Your task to perform on an android device: turn on notifications settings in the gmail app Image 0: 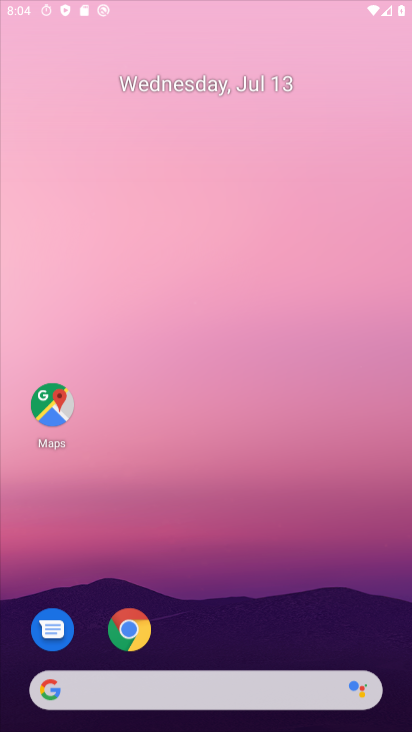
Step 0: click (252, 90)
Your task to perform on an android device: turn on notifications settings in the gmail app Image 1: 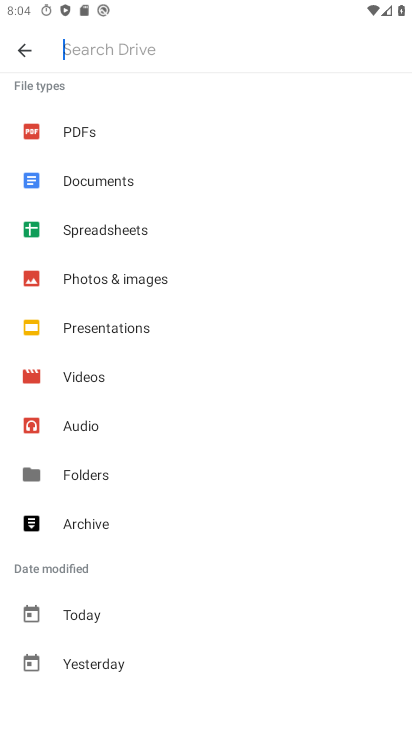
Step 1: press home button
Your task to perform on an android device: turn on notifications settings in the gmail app Image 2: 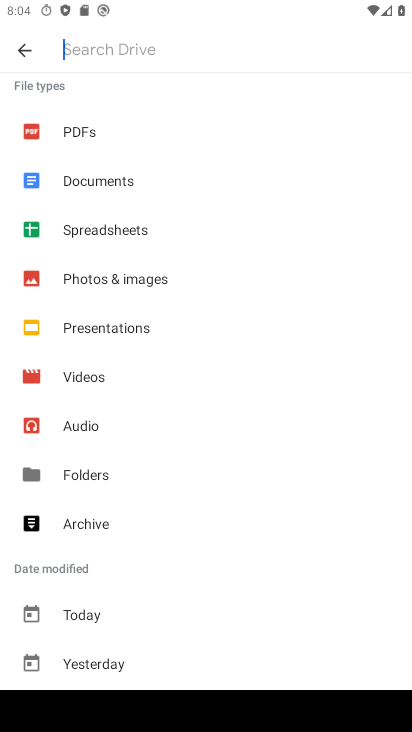
Step 2: press home button
Your task to perform on an android device: turn on notifications settings in the gmail app Image 3: 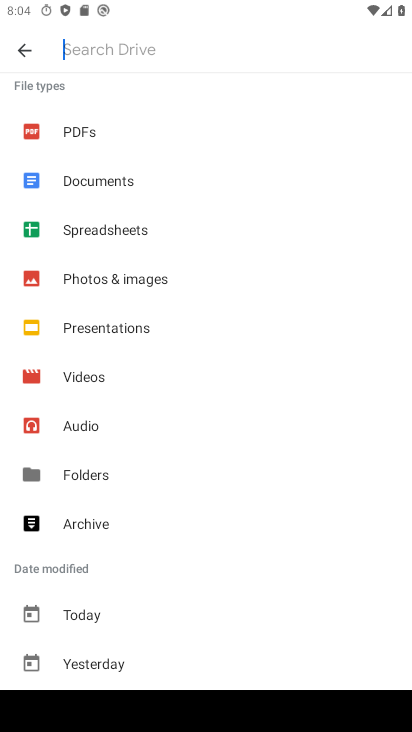
Step 3: click (248, 185)
Your task to perform on an android device: turn on notifications settings in the gmail app Image 4: 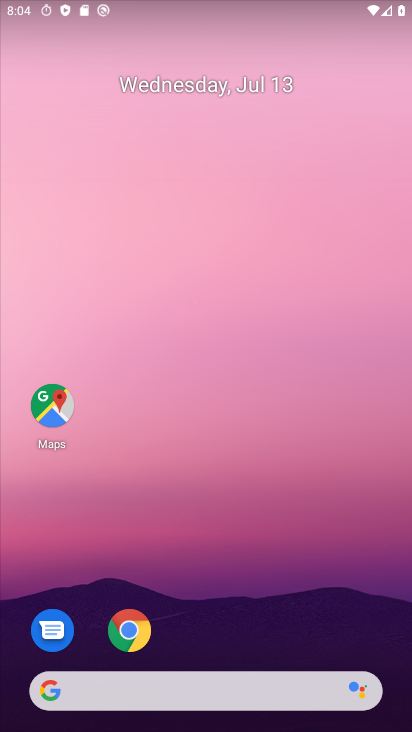
Step 4: drag from (190, 635) to (193, 363)
Your task to perform on an android device: turn on notifications settings in the gmail app Image 5: 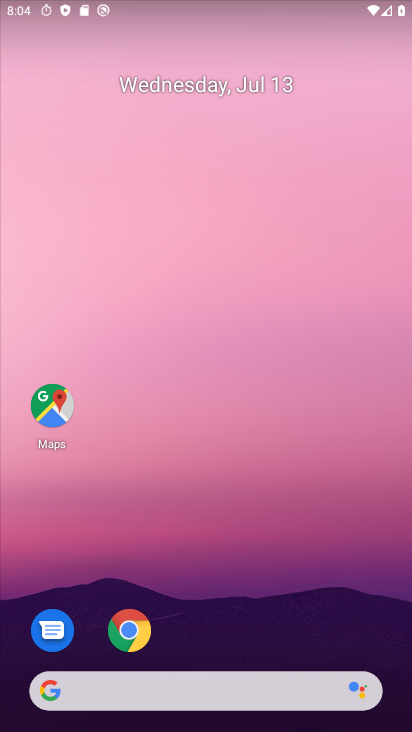
Step 5: drag from (200, 633) to (243, 74)
Your task to perform on an android device: turn on notifications settings in the gmail app Image 6: 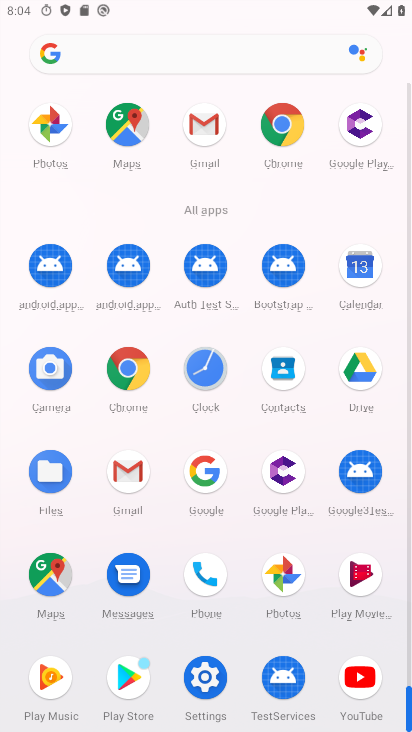
Step 6: click (131, 472)
Your task to perform on an android device: turn on notifications settings in the gmail app Image 7: 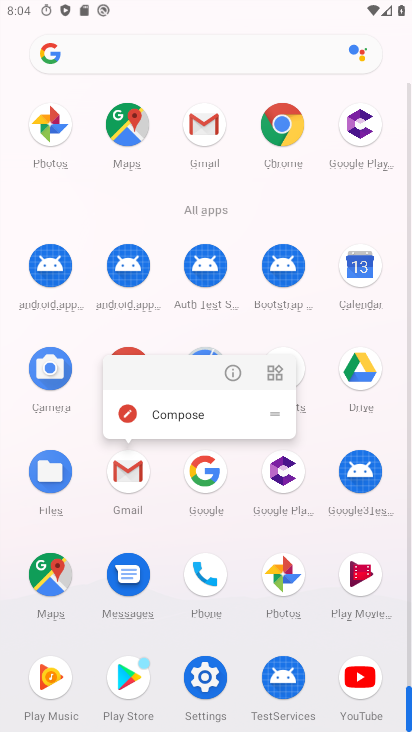
Step 7: click (235, 372)
Your task to perform on an android device: turn on notifications settings in the gmail app Image 8: 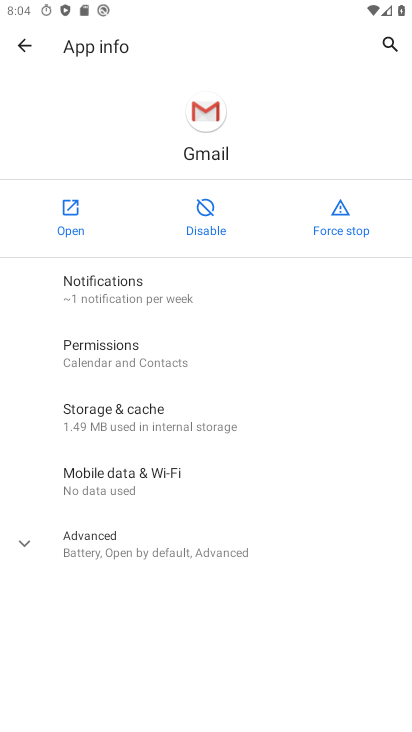
Step 8: click (65, 225)
Your task to perform on an android device: turn on notifications settings in the gmail app Image 9: 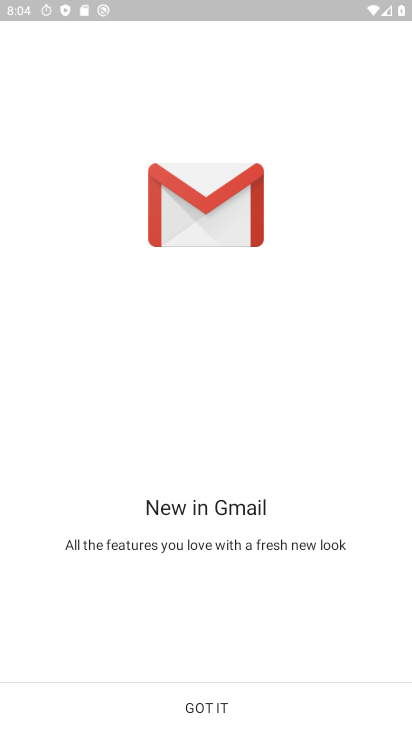
Step 9: click (206, 700)
Your task to perform on an android device: turn on notifications settings in the gmail app Image 10: 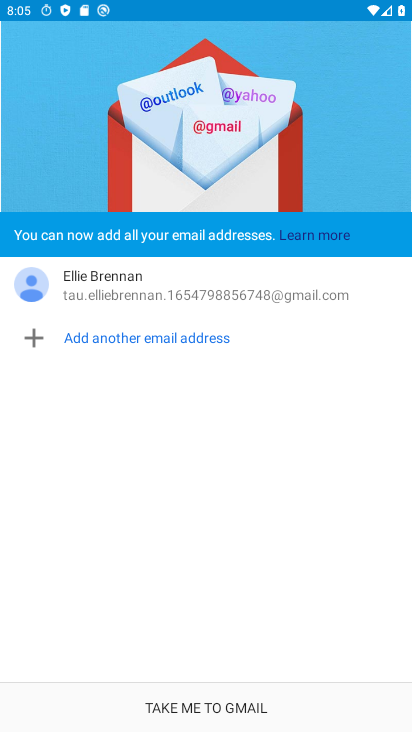
Step 10: drag from (187, 442) to (218, 287)
Your task to perform on an android device: turn on notifications settings in the gmail app Image 11: 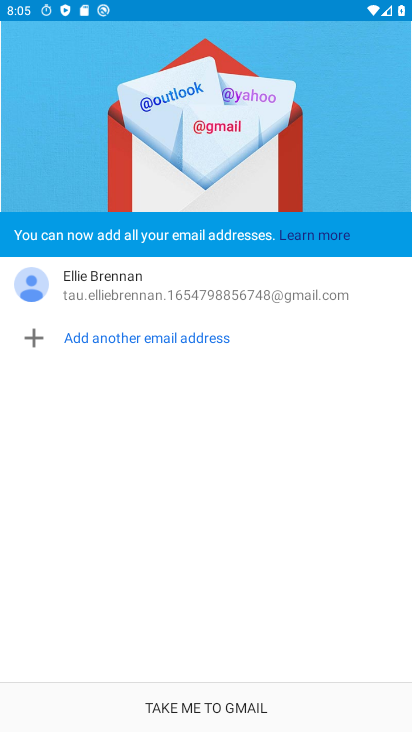
Step 11: click (184, 691)
Your task to perform on an android device: turn on notifications settings in the gmail app Image 12: 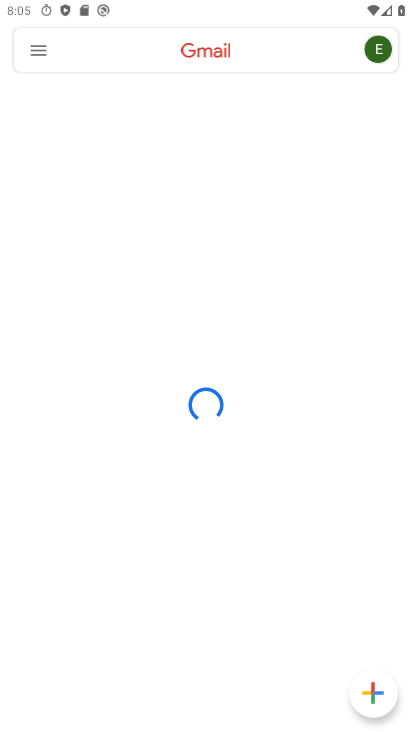
Step 12: drag from (219, 465) to (290, 206)
Your task to perform on an android device: turn on notifications settings in the gmail app Image 13: 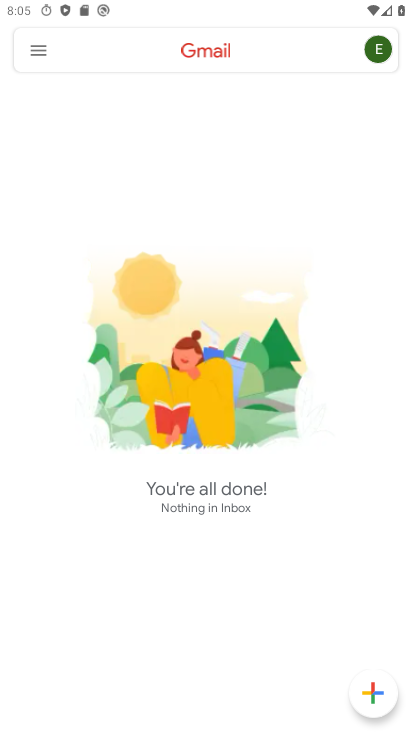
Step 13: drag from (261, 179) to (232, 724)
Your task to perform on an android device: turn on notifications settings in the gmail app Image 14: 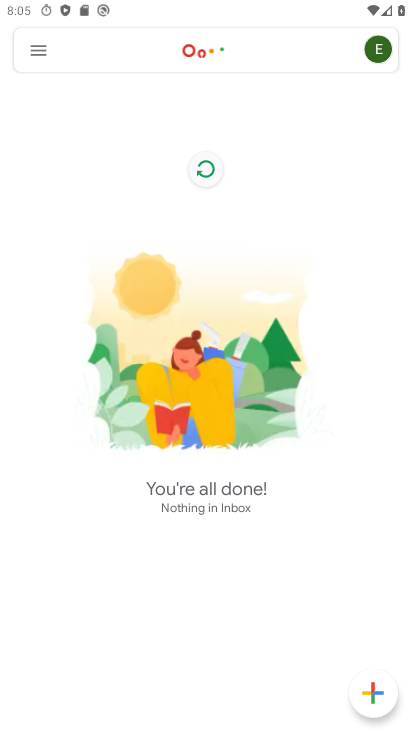
Step 14: drag from (203, 549) to (292, 225)
Your task to perform on an android device: turn on notifications settings in the gmail app Image 15: 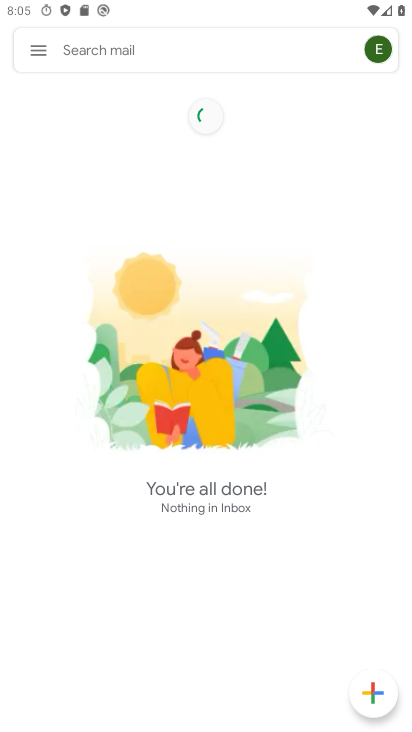
Step 15: drag from (214, 228) to (152, 590)
Your task to perform on an android device: turn on notifications settings in the gmail app Image 16: 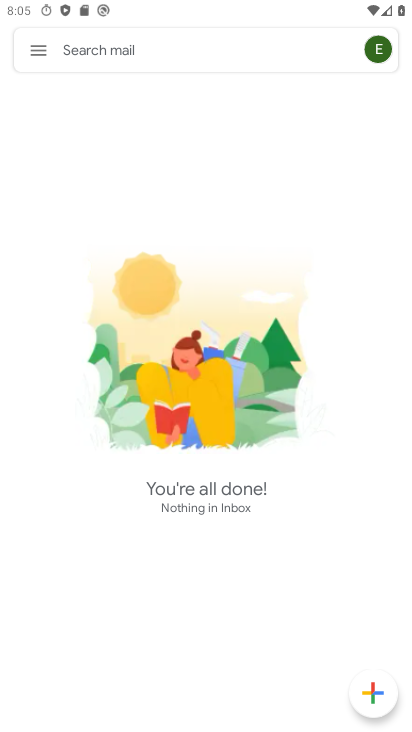
Step 16: drag from (208, 593) to (239, 358)
Your task to perform on an android device: turn on notifications settings in the gmail app Image 17: 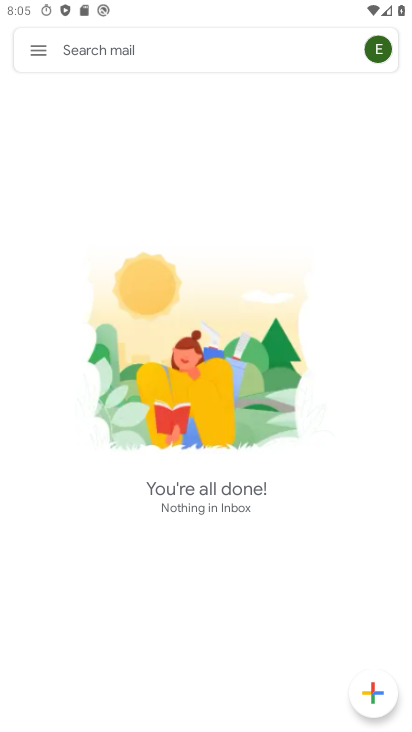
Step 17: click (182, 612)
Your task to perform on an android device: turn on notifications settings in the gmail app Image 18: 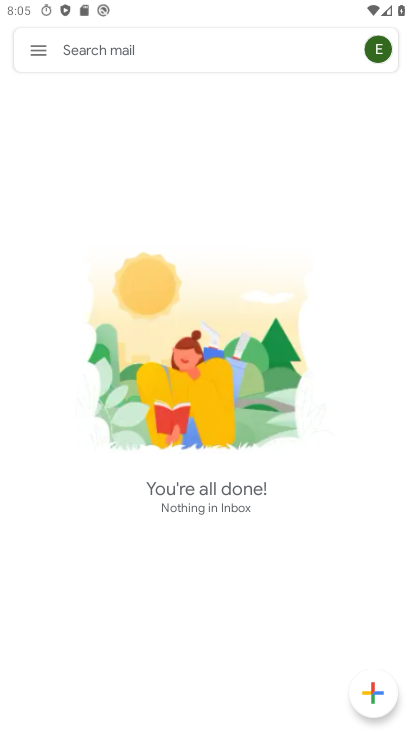
Step 18: click (41, 40)
Your task to perform on an android device: turn on notifications settings in the gmail app Image 19: 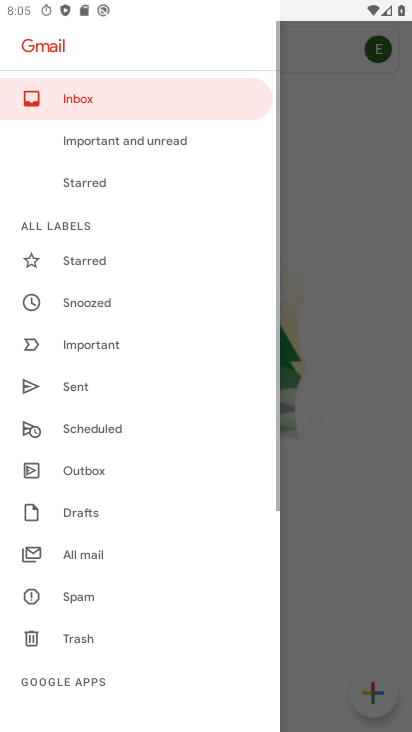
Step 19: drag from (77, 534) to (187, 273)
Your task to perform on an android device: turn on notifications settings in the gmail app Image 20: 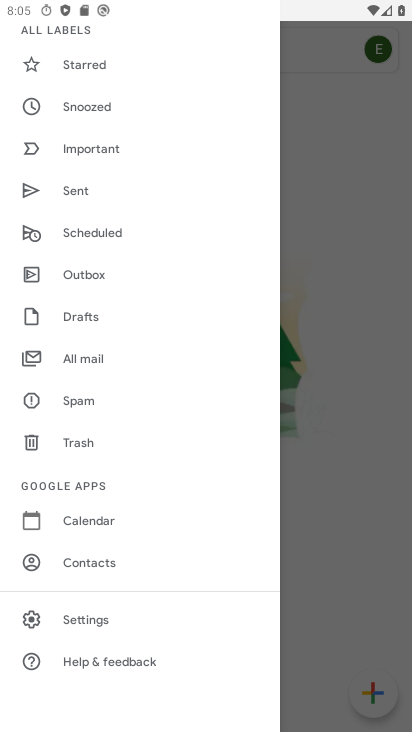
Step 20: drag from (148, 449) to (229, 221)
Your task to perform on an android device: turn on notifications settings in the gmail app Image 21: 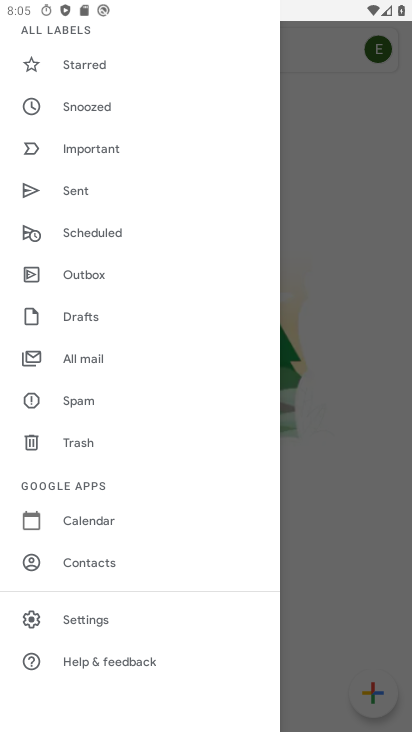
Step 21: click (126, 612)
Your task to perform on an android device: turn on notifications settings in the gmail app Image 22: 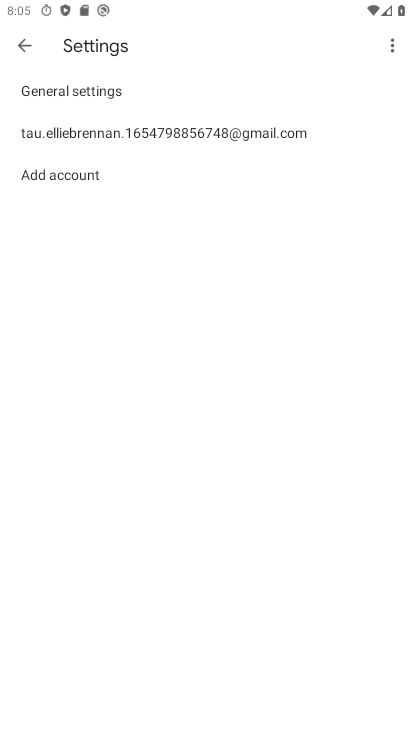
Step 22: drag from (152, 599) to (200, 281)
Your task to perform on an android device: turn on notifications settings in the gmail app Image 23: 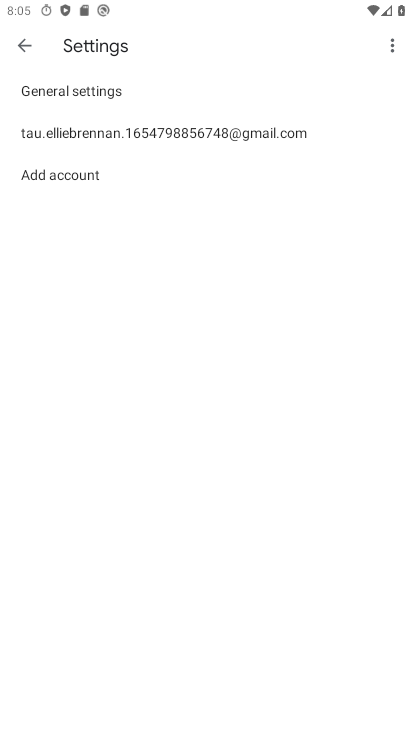
Step 23: click (155, 140)
Your task to perform on an android device: turn on notifications settings in the gmail app Image 24: 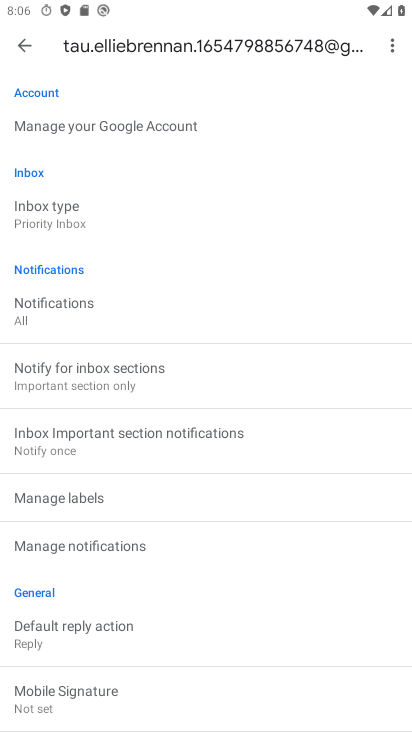
Step 24: click (106, 548)
Your task to perform on an android device: turn on notifications settings in the gmail app Image 25: 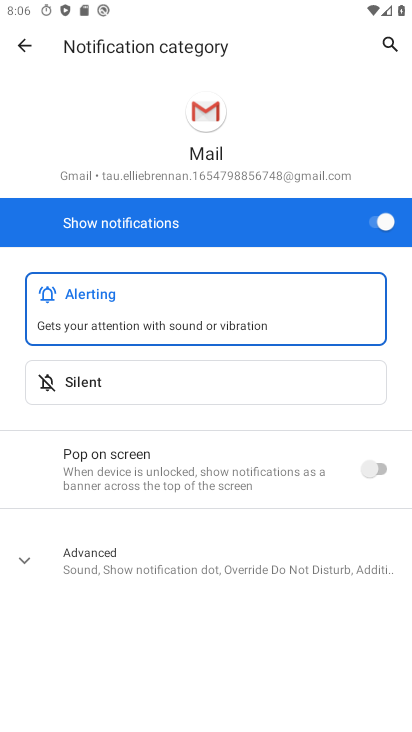
Step 25: drag from (216, 597) to (306, 76)
Your task to perform on an android device: turn on notifications settings in the gmail app Image 26: 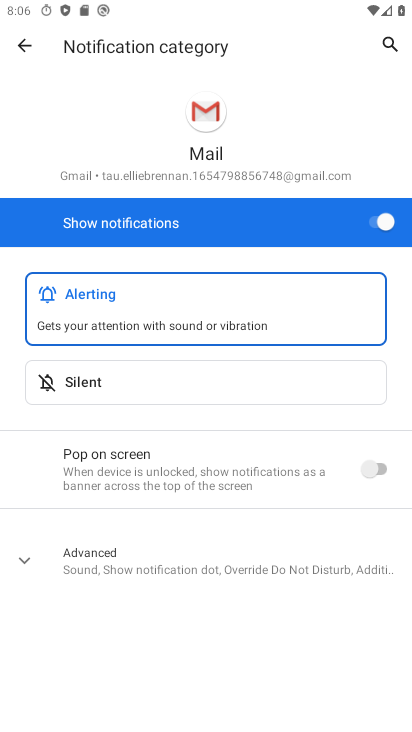
Step 26: click (132, 560)
Your task to perform on an android device: turn on notifications settings in the gmail app Image 27: 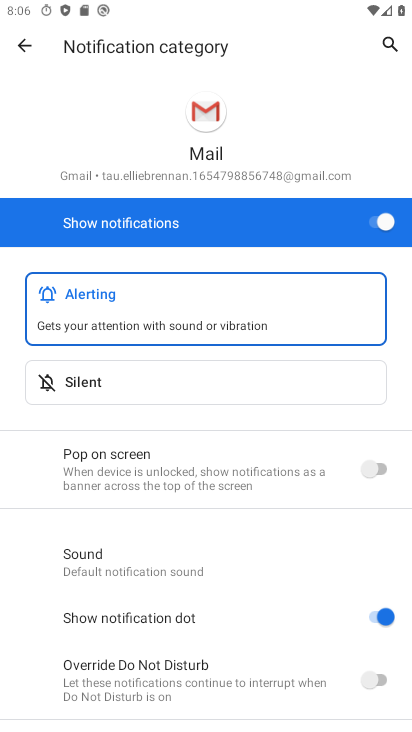
Step 27: task complete